Your task to perform on an android device: Add logitech g910 to the cart on newegg.com, then select checkout. Image 0: 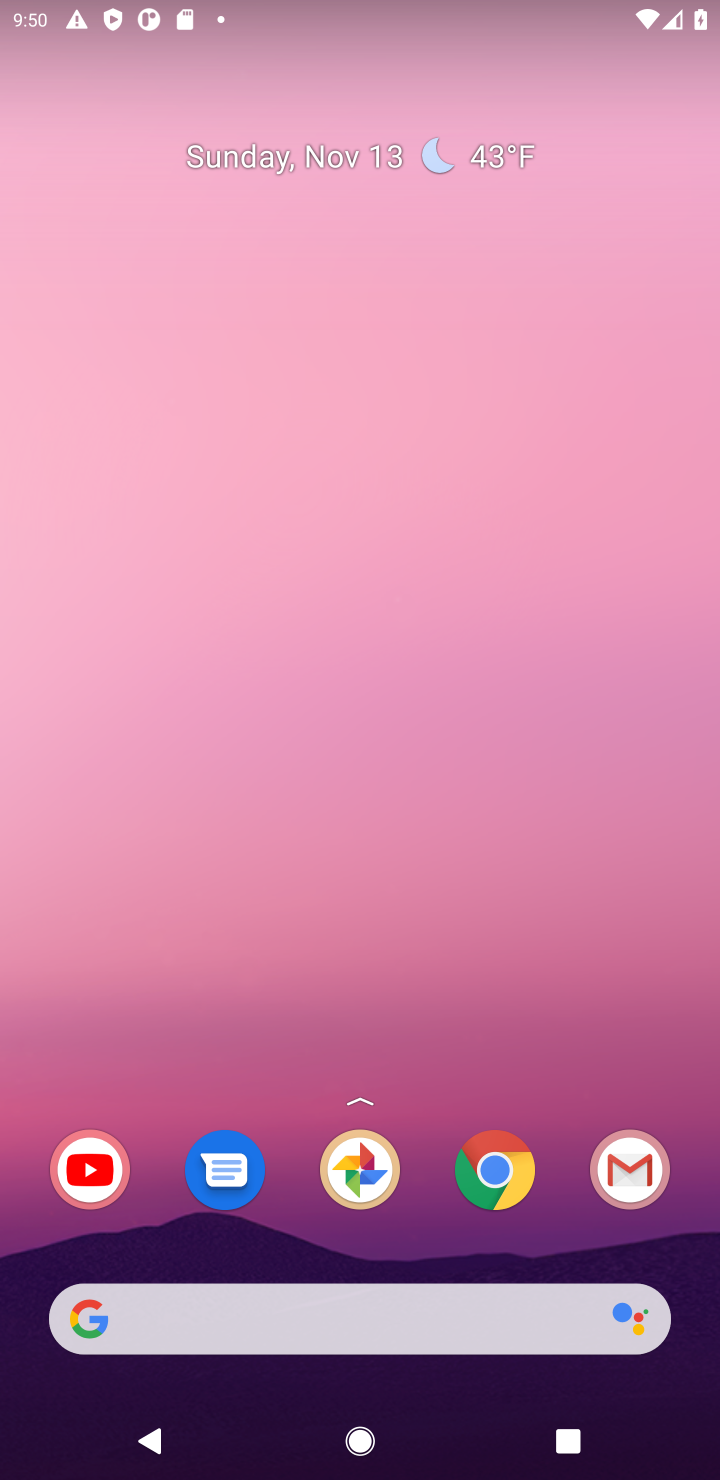
Step 0: drag from (406, 1096) to (595, 13)
Your task to perform on an android device: Add logitech g910 to the cart on newegg.com, then select checkout. Image 1: 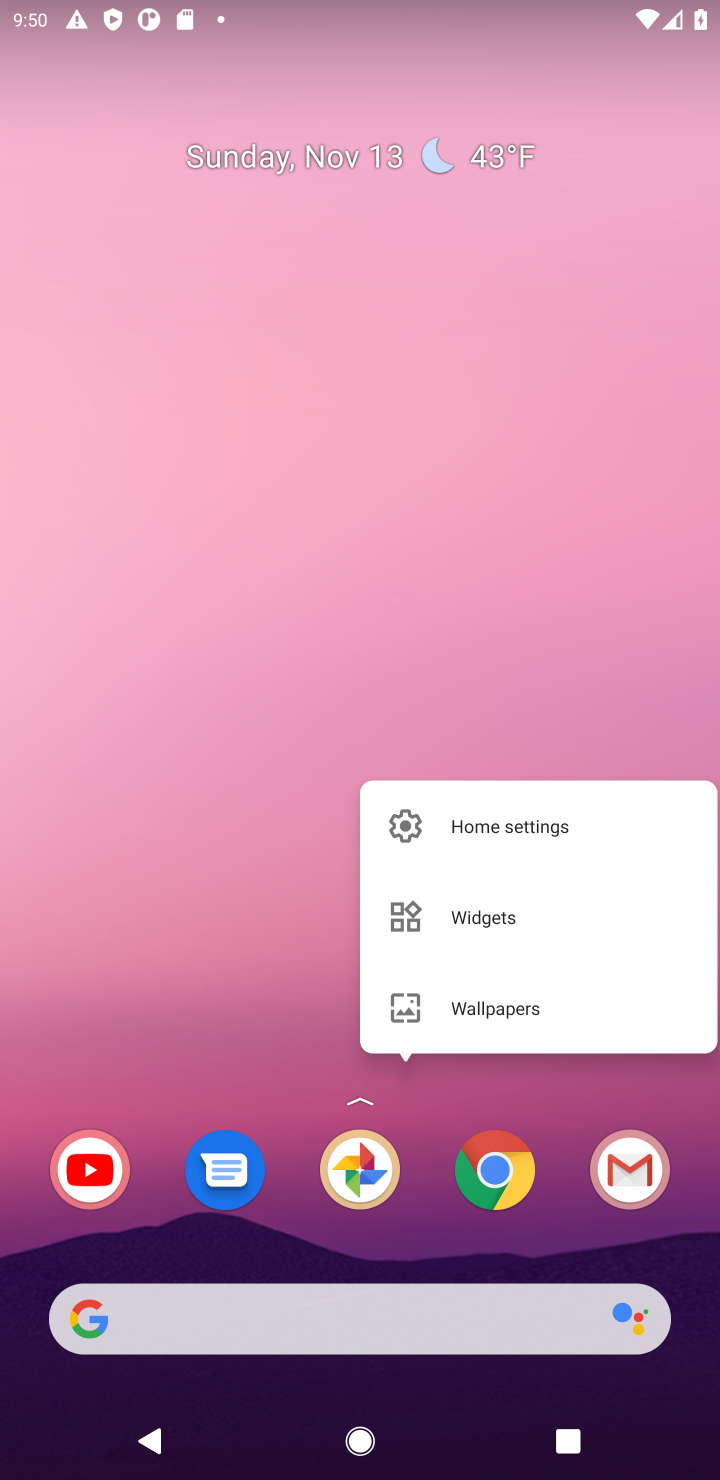
Step 1: click (405, 320)
Your task to perform on an android device: Add logitech g910 to the cart on newegg.com, then select checkout. Image 2: 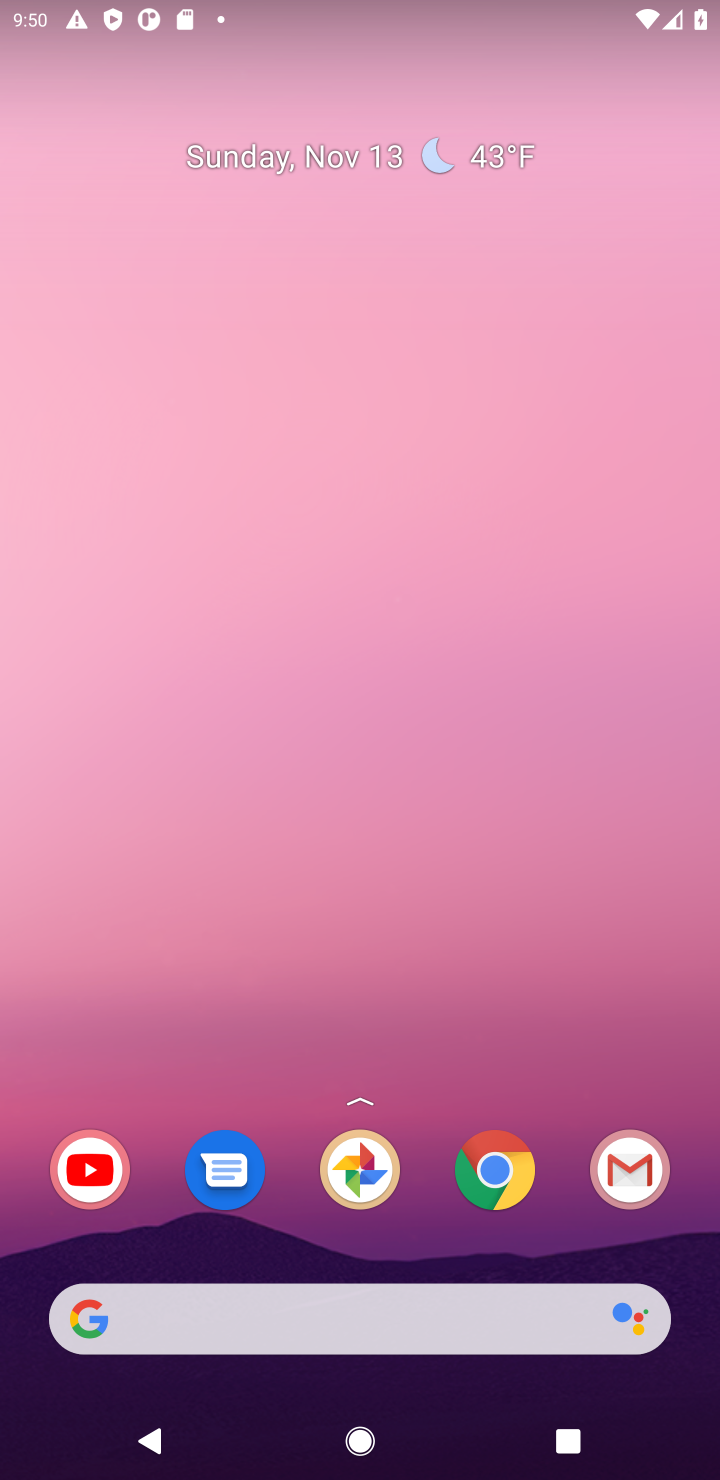
Step 2: drag from (393, 642) to (500, 0)
Your task to perform on an android device: Add logitech g910 to the cart on newegg.com, then select checkout. Image 3: 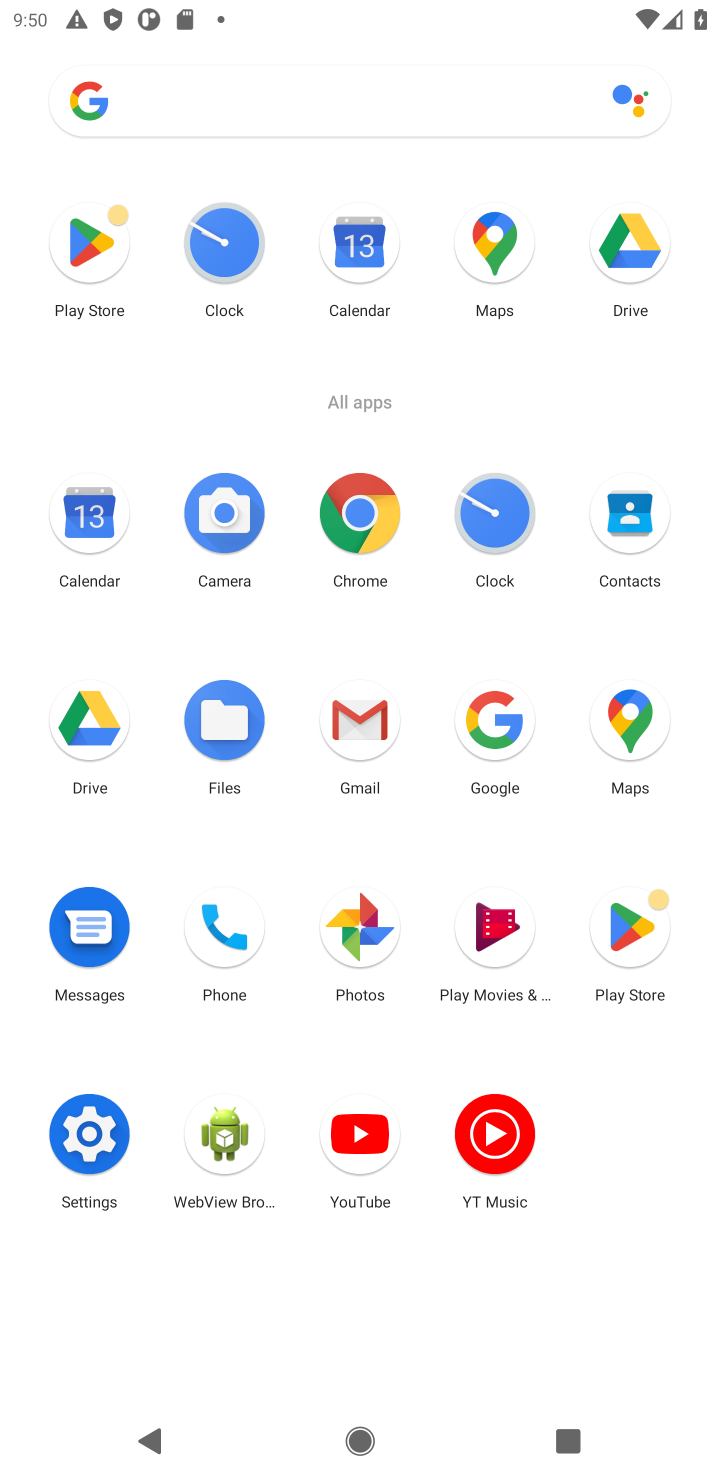
Step 3: click (364, 495)
Your task to perform on an android device: Add logitech g910 to the cart on newegg.com, then select checkout. Image 4: 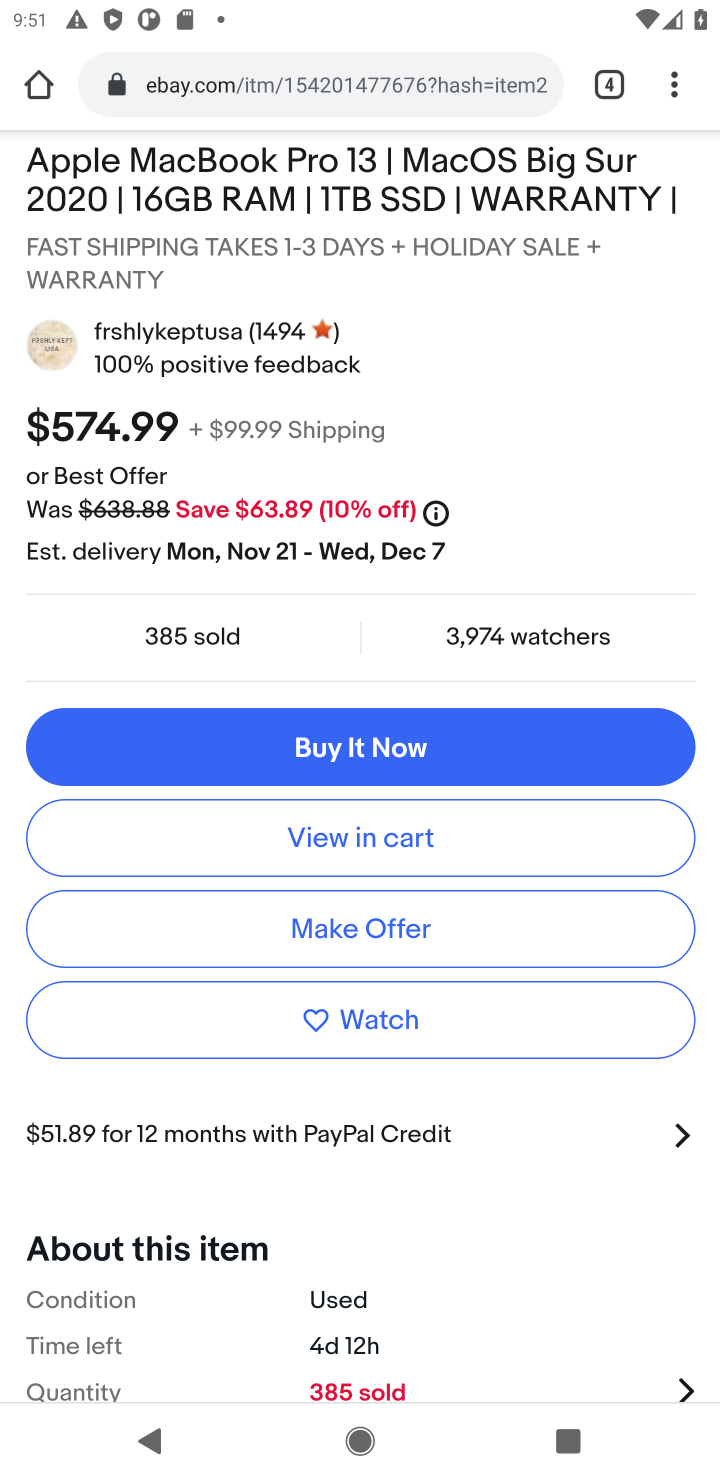
Step 4: click (321, 74)
Your task to perform on an android device: Add logitech g910 to the cart on newegg.com, then select checkout. Image 5: 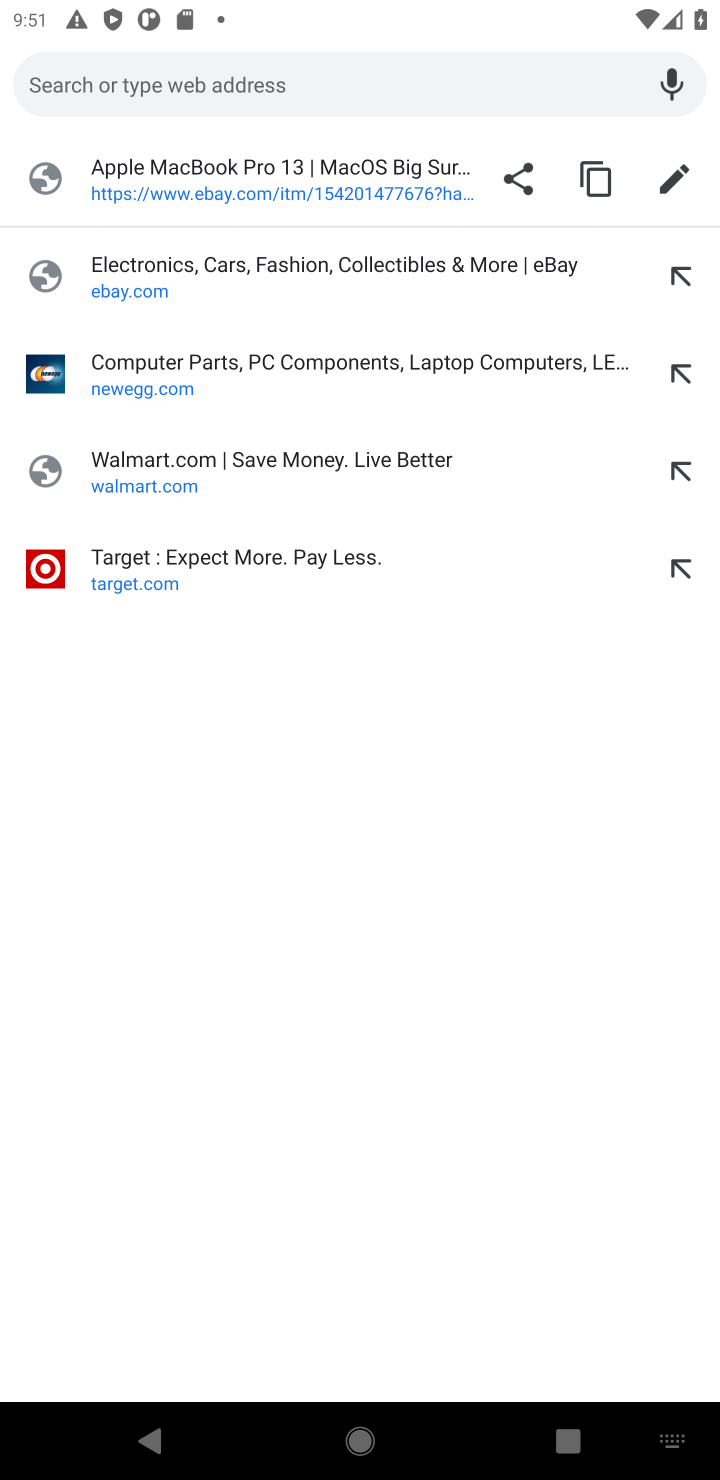
Step 5: type "newegg.com"
Your task to perform on an android device: Add logitech g910 to the cart on newegg.com, then select checkout. Image 6: 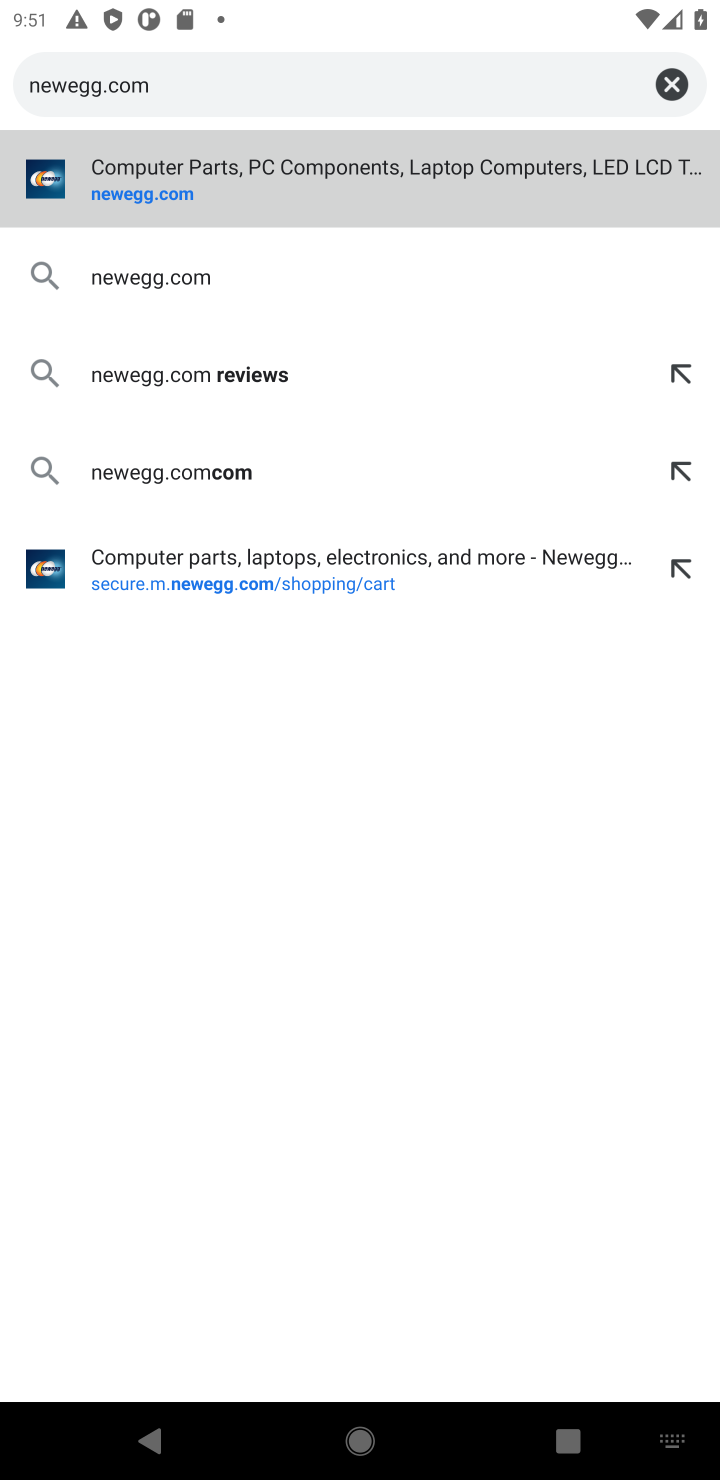
Step 6: press enter
Your task to perform on an android device: Add logitech g910 to the cart on newegg.com, then select checkout. Image 7: 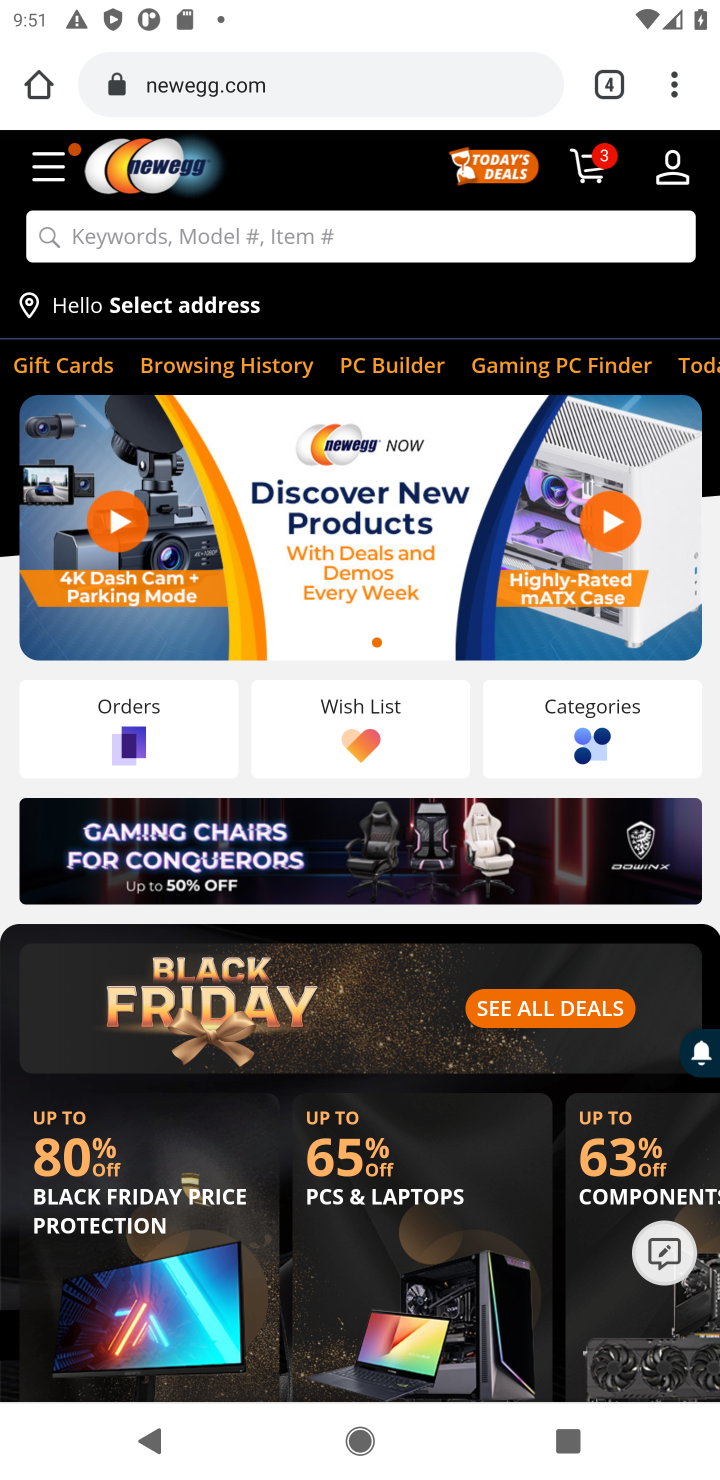
Step 7: click (212, 224)
Your task to perform on an android device: Add logitech g910 to the cart on newegg.com, then select checkout. Image 8: 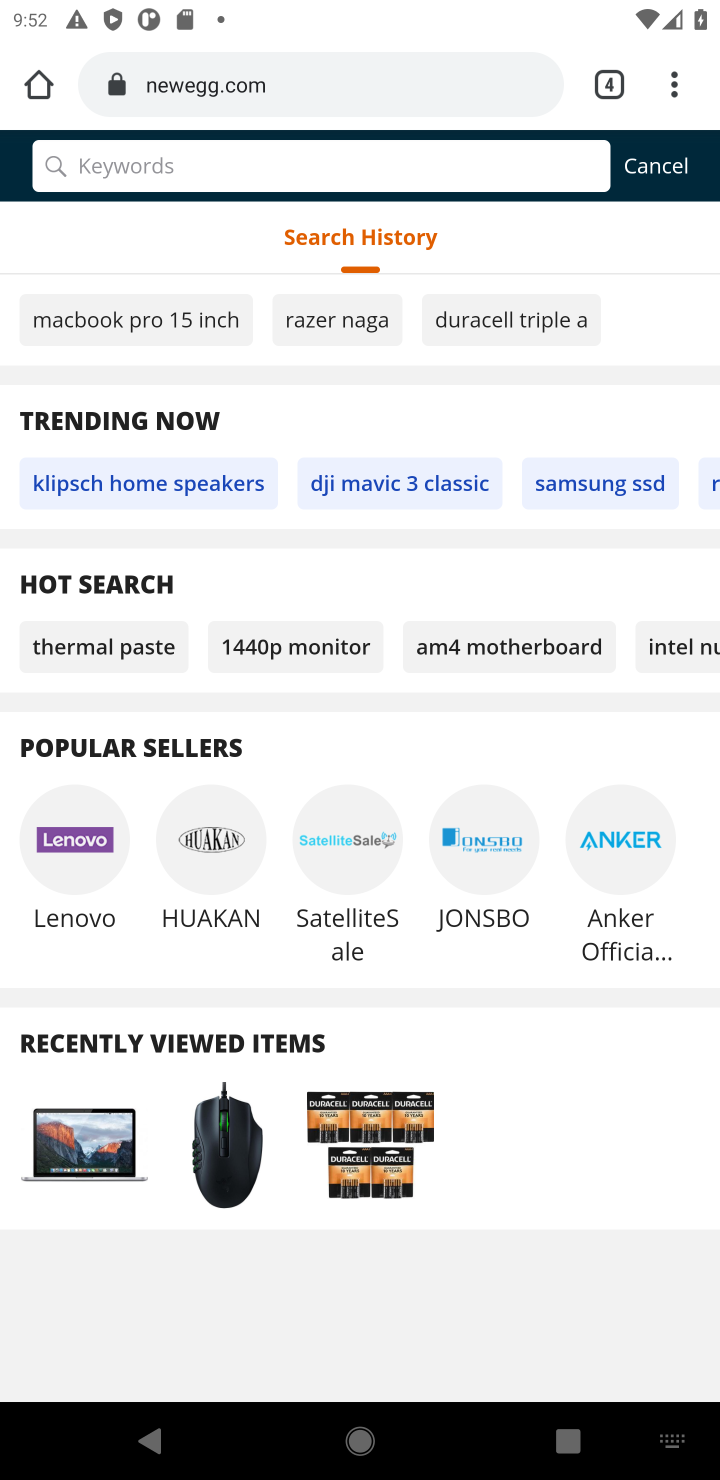
Step 8: type " logitech g910 "
Your task to perform on an android device: Add logitech g910 to the cart on newegg.com, then select checkout. Image 9: 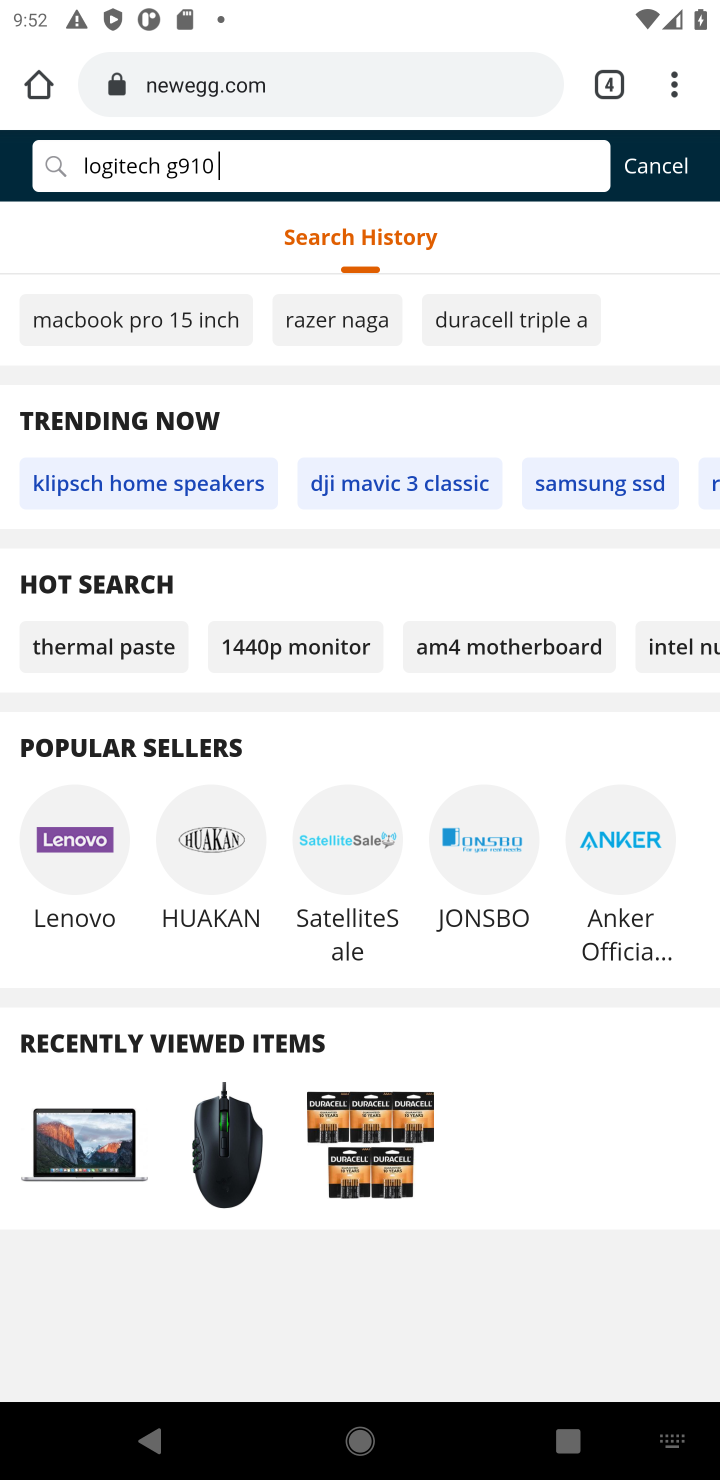
Step 9: press enter
Your task to perform on an android device: Add logitech g910 to the cart on newegg.com, then select checkout. Image 10: 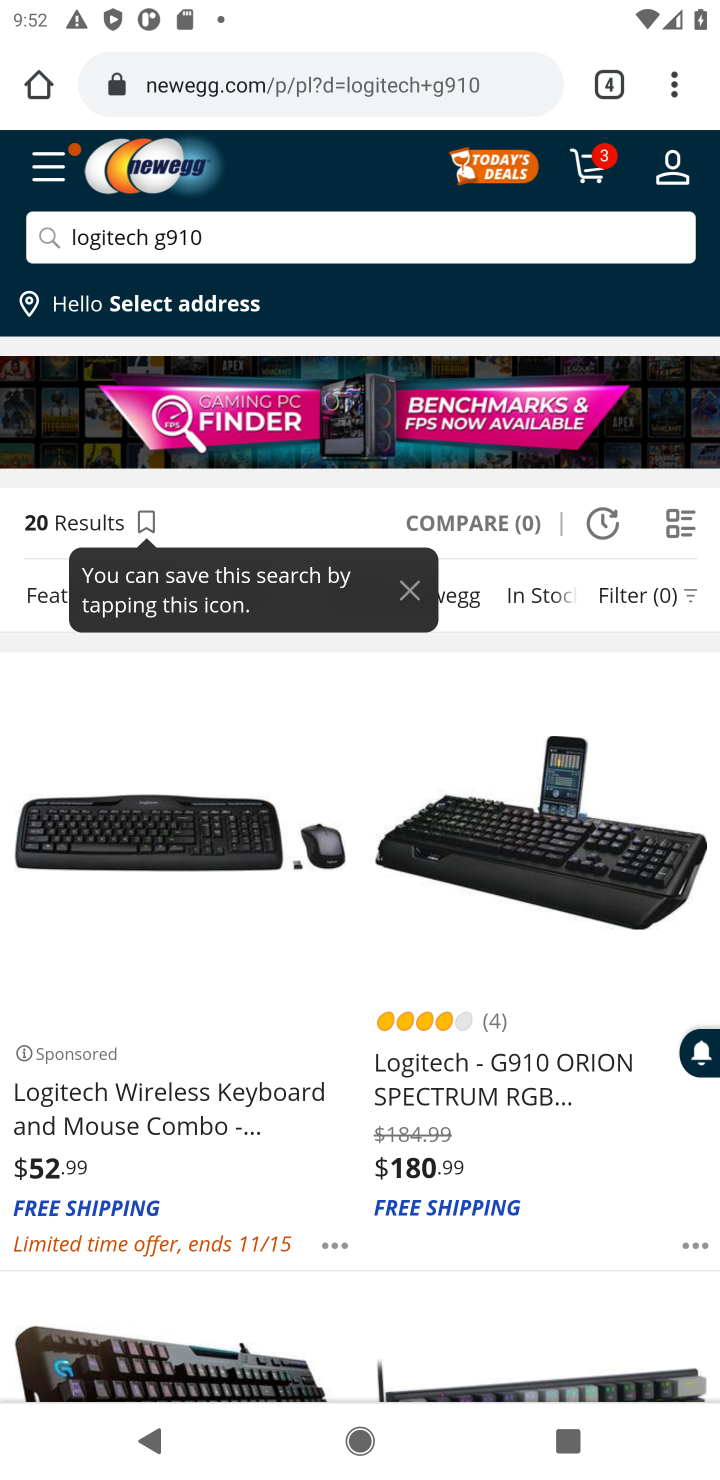
Step 10: click (73, 1134)
Your task to perform on an android device: Add logitech g910 to the cart on newegg.com, then select checkout. Image 11: 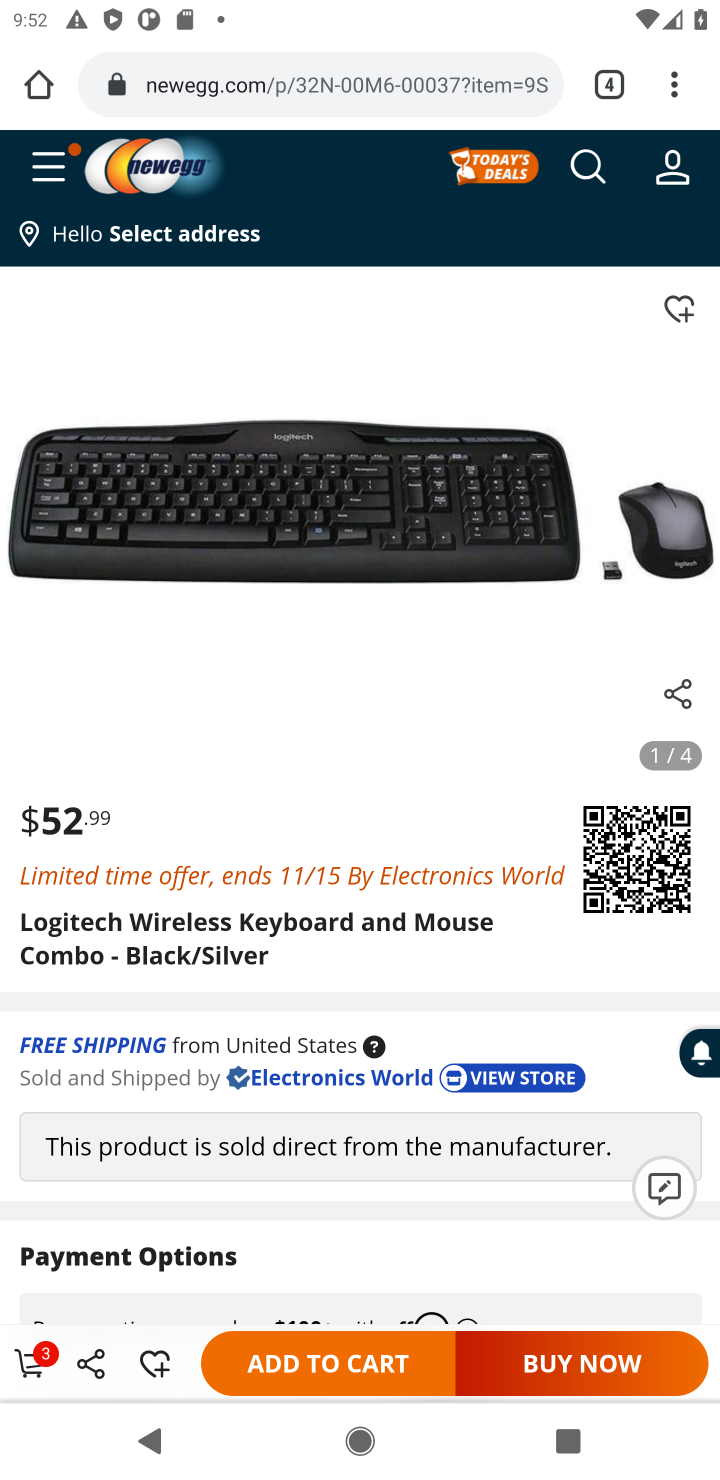
Step 11: click (290, 1370)
Your task to perform on an android device: Add logitech g910 to the cart on newegg.com, then select checkout. Image 12: 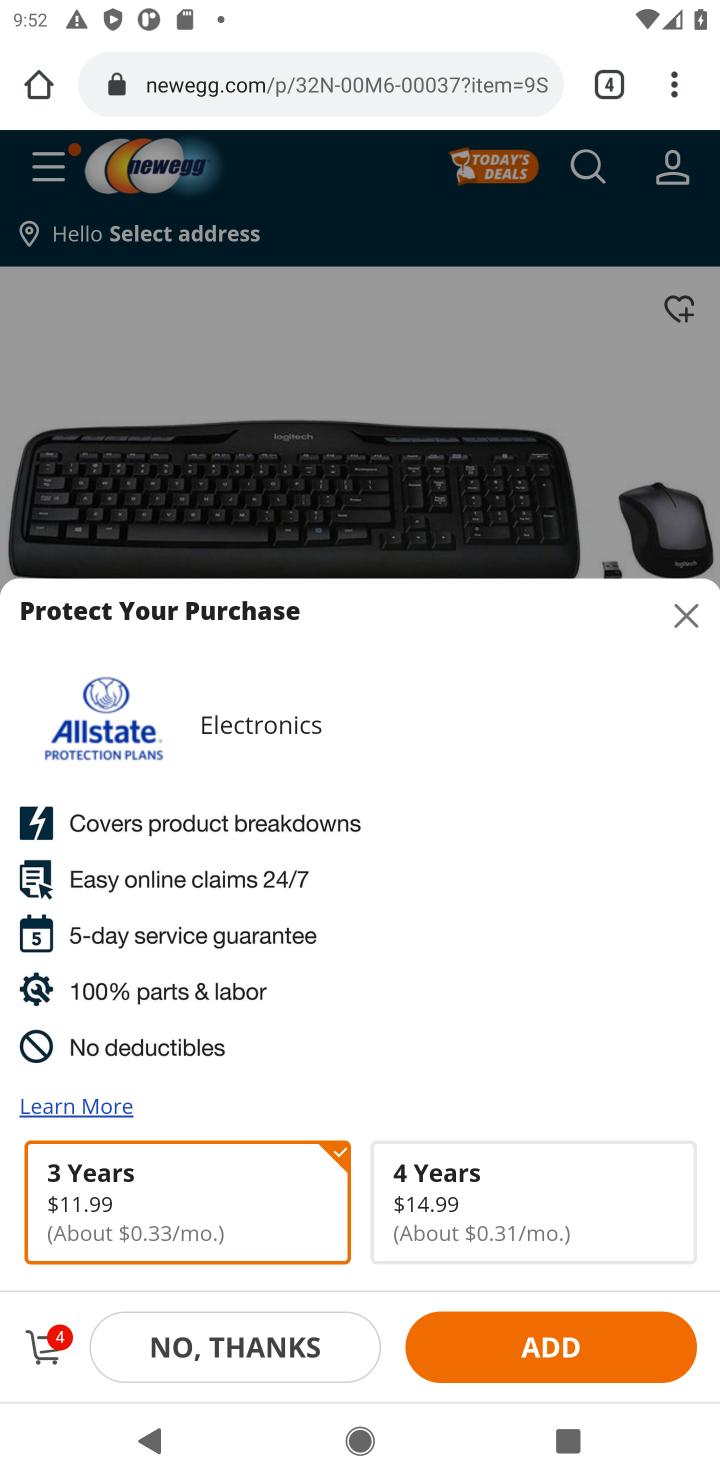
Step 12: click (650, 1324)
Your task to perform on an android device: Add logitech g910 to the cart on newegg.com, then select checkout. Image 13: 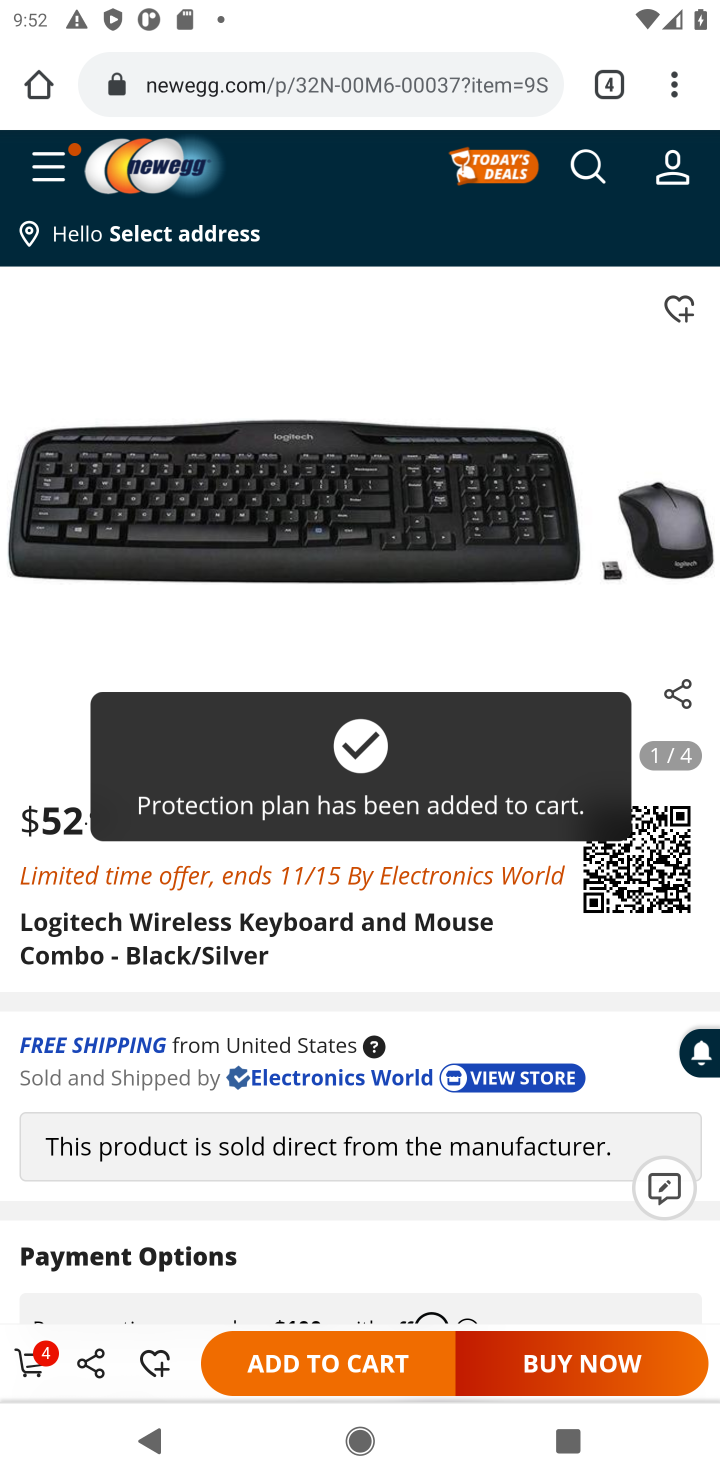
Step 13: click (20, 1353)
Your task to perform on an android device: Add logitech g910 to the cart on newegg.com, then select checkout. Image 14: 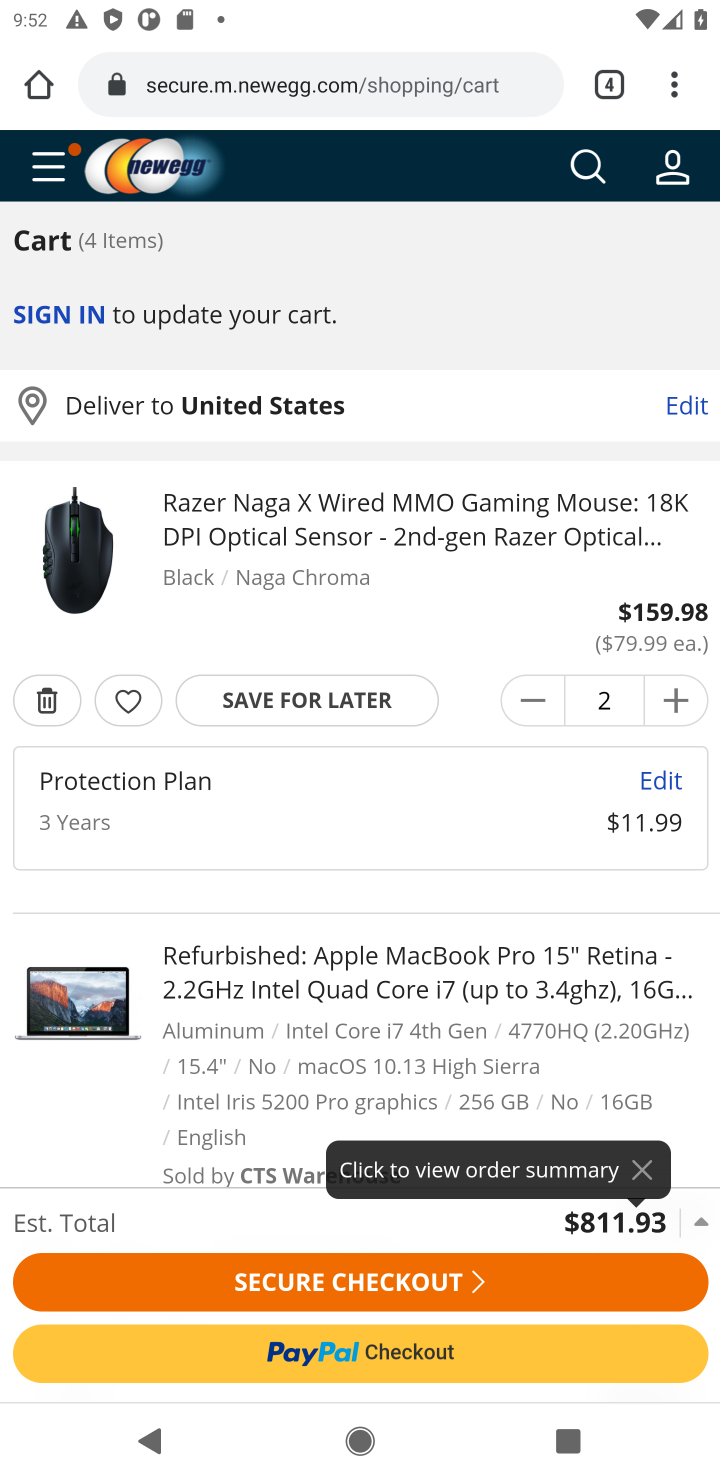
Step 14: drag from (402, 1029) to (433, 189)
Your task to perform on an android device: Add logitech g910 to the cart on newegg.com, then select checkout. Image 15: 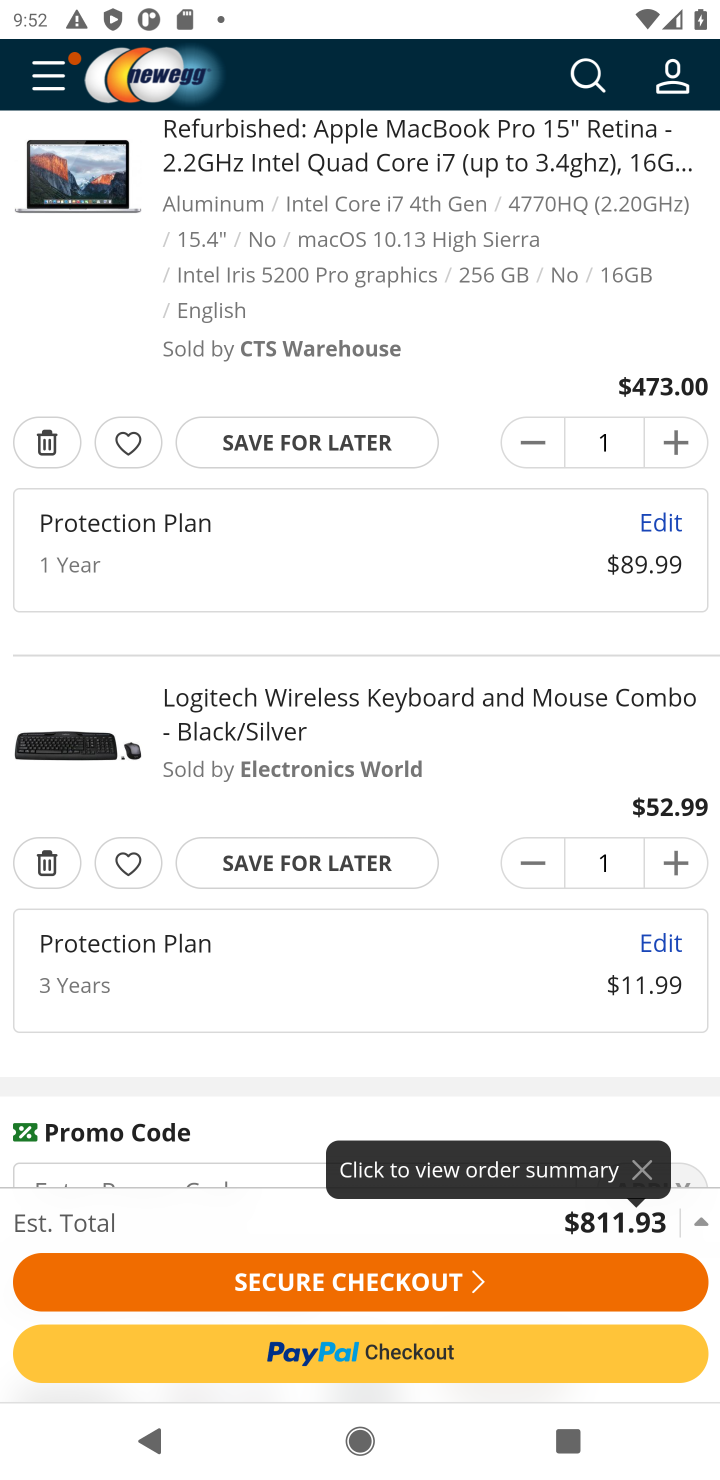
Step 15: click (376, 1281)
Your task to perform on an android device: Add logitech g910 to the cart on newegg.com, then select checkout. Image 16: 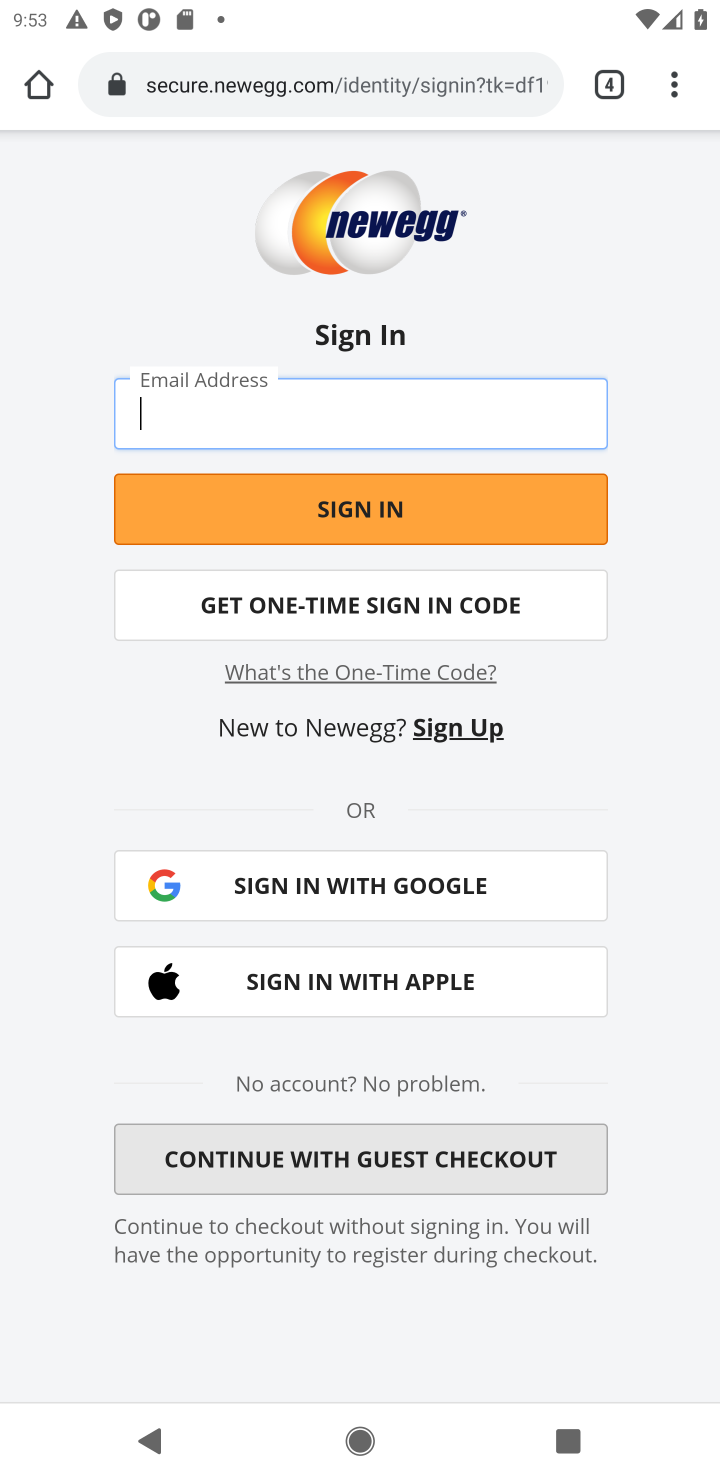
Step 16: task complete